Your task to perform on an android device: Go to internet settings Image 0: 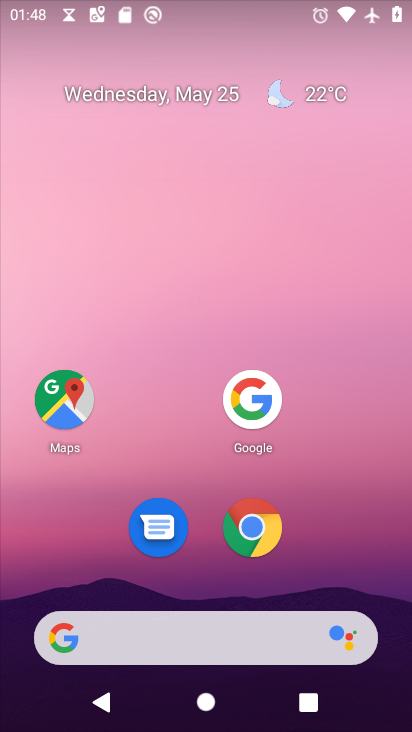
Step 0: press home button
Your task to perform on an android device: Go to internet settings Image 1: 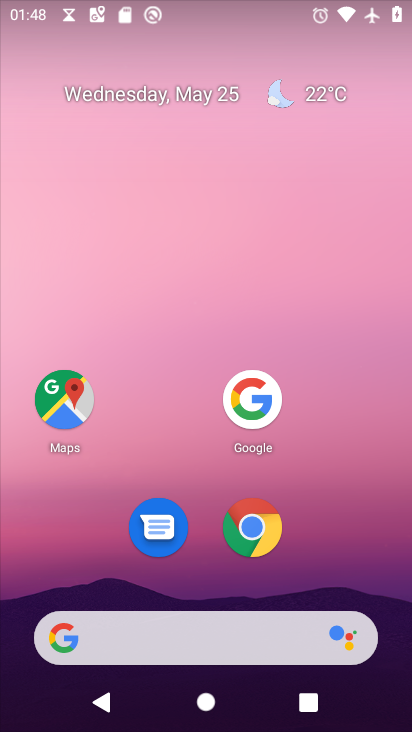
Step 1: drag from (211, 629) to (357, 1)
Your task to perform on an android device: Go to internet settings Image 2: 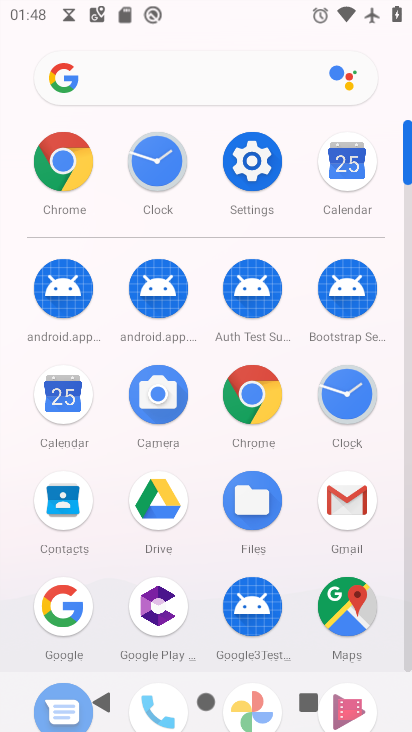
Step 2: click (255, 173)
Your task to perform on an android device: Go to internet settings Image 3: 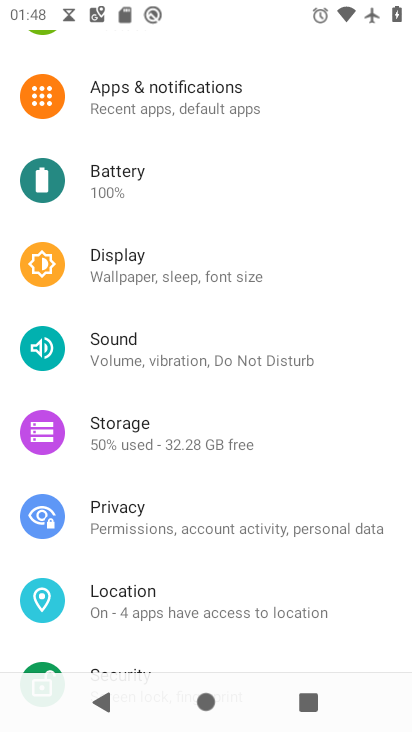
Step 3: drag from (349, 109) to (210, 573)
Your task to perform on an android device: Go to internet settings Image 4: 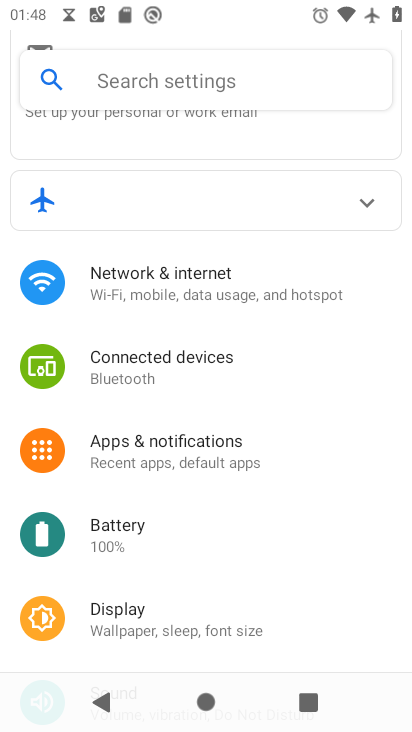
Step 4: click (201, 285)
Your task to perform on an android device: Go to internet settings Image 5: 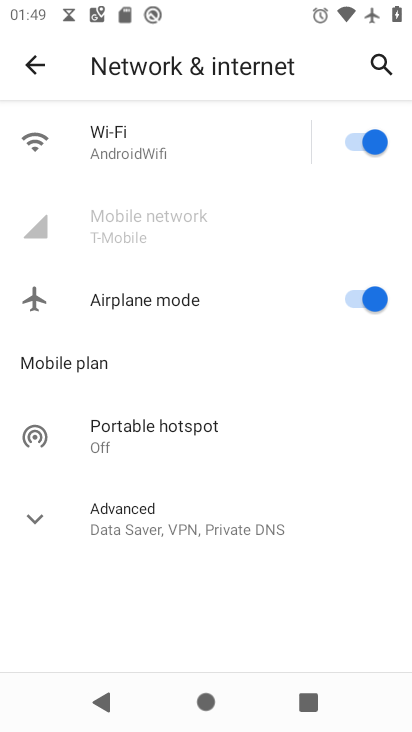
Step 5: task complete